Your task to perform on an android device: Open Wikipedia Image 0: 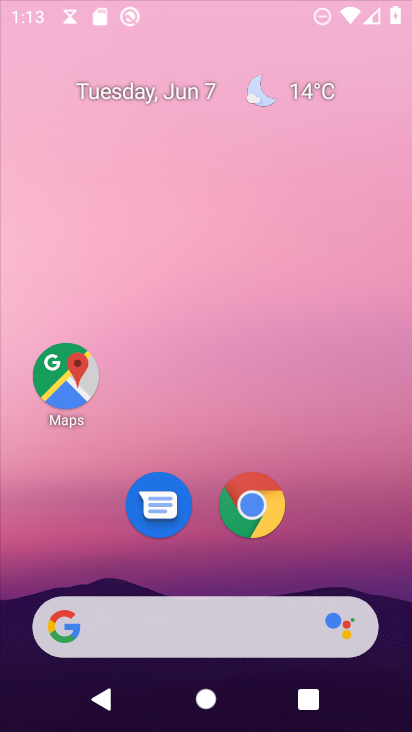
Step 0: press home button
Your task to perform on an android device: Open Wikipedia Image 1: 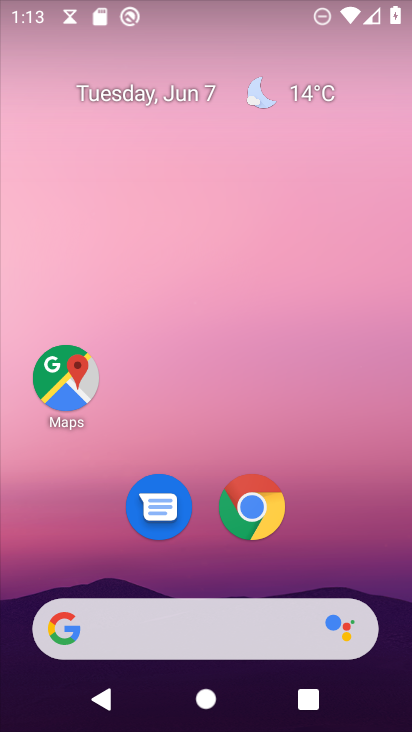
Step 1: click (246, 508)
Your task to perform on an android device: Open Wikipedia Image 2: 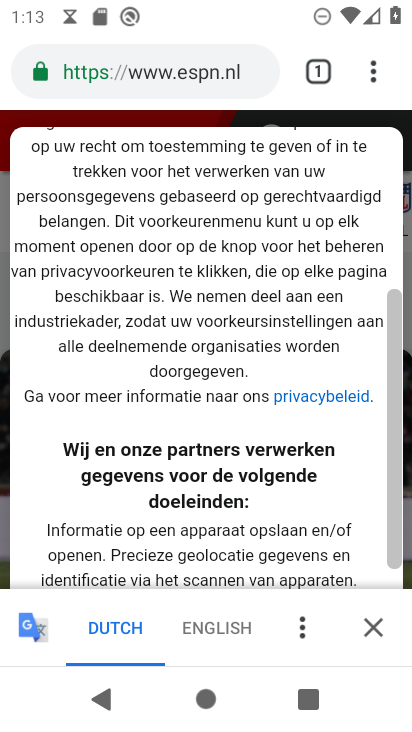
Step 2: click (179, 57)
Your task to perform on an android device: Open Wikipedia Image 3: 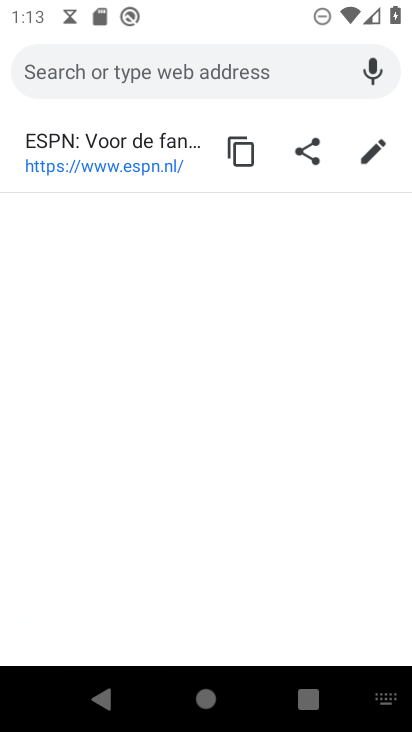
Step 3: type "wikipedia"
Your task to perform on an android device: Open Wikipedia Image 4: 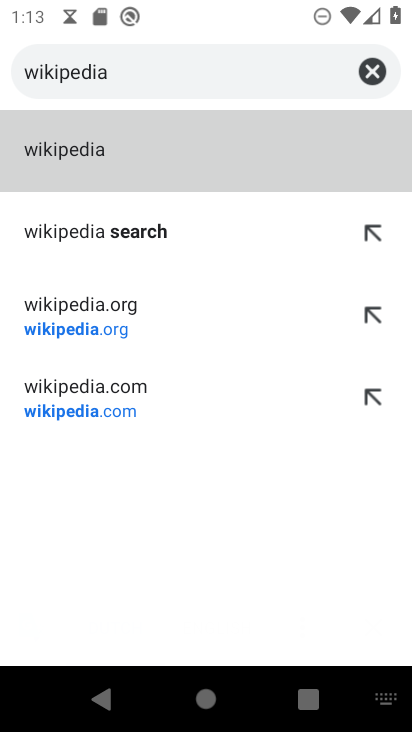
Step 4: click (64, 148)
Your task to perform on an android device: Open Wikipedia Image 5: 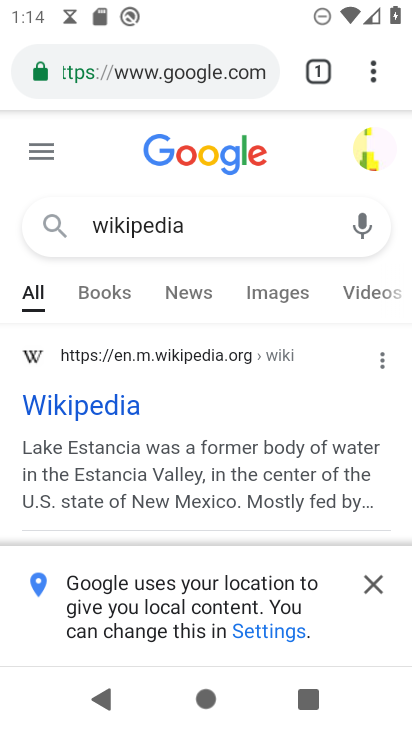
Step 5: click (106, 414)
Your task to perform on an android device: Open Wikipedia Image 6: 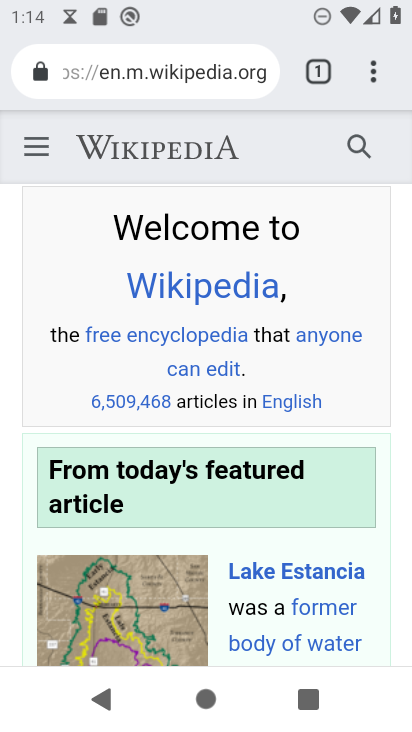
Step 6: task complete